Your task to perform on an android device: Go to Yahoo.com Image 0: 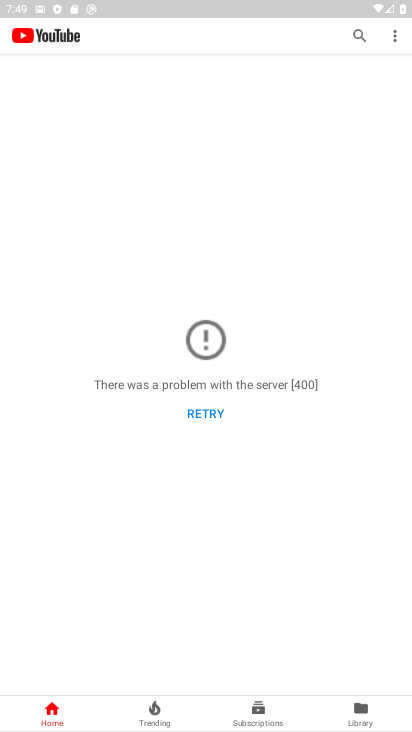
Step 0: drag from (271, 519) to (257, 477)
Your task to perform on an android device: Go to Yahoo.com Image 1: 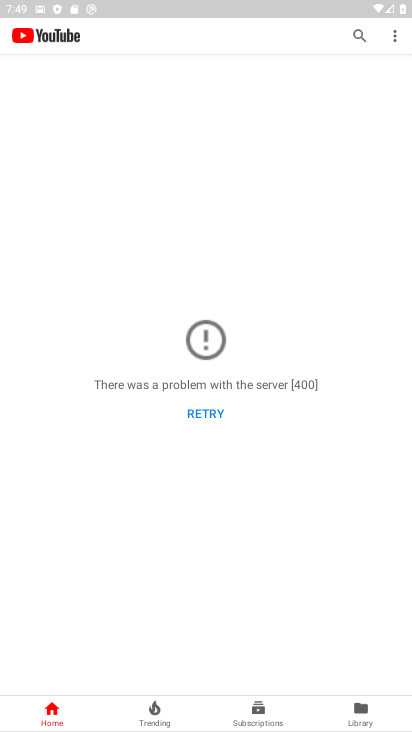
Step 1: press home button
Your task to perform on an android device: Go to Yahoo.com Image 2: 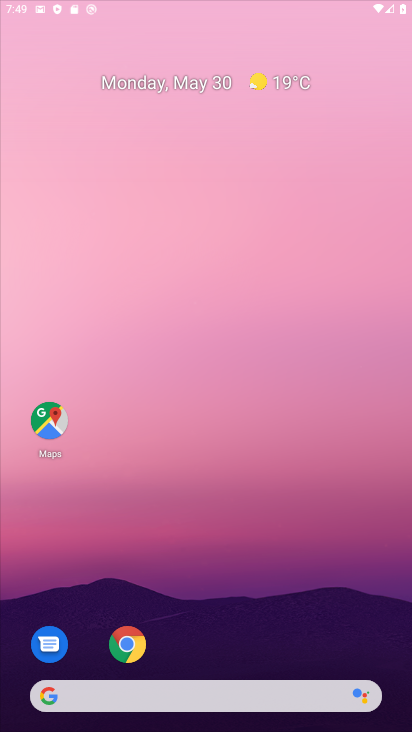
Step 2: drag from (157, 602) to (318, 2)
Your task to perform on an android device: Go to Yahoo.com Image 3: 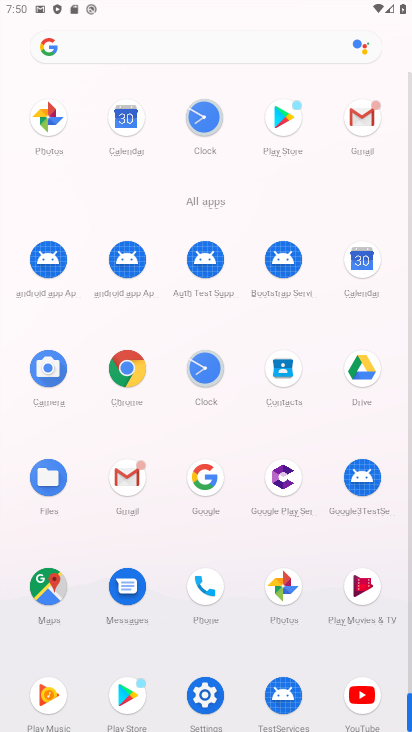
Step 3: click (145, 48)
Your task to perform on an android device: Go to Yahoo.com Image 4: 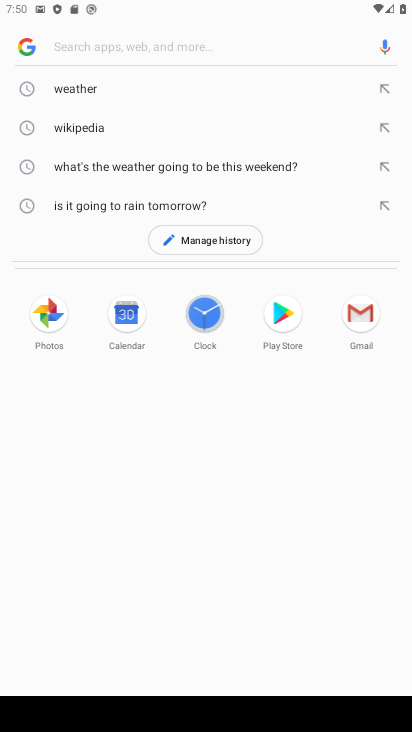
Step 4: type "Yahoo.com"
Your task to perform on an android device: Go to Yahoo.com Image 5: 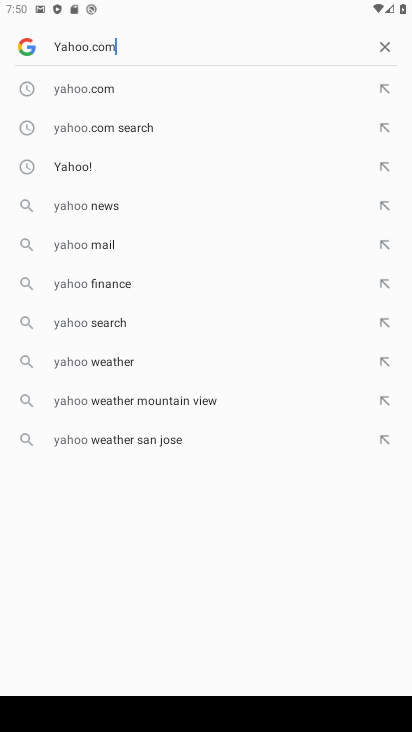
Step 5: type ""
Your task to perform on an android device: Go to Yahoo.com Image 6: 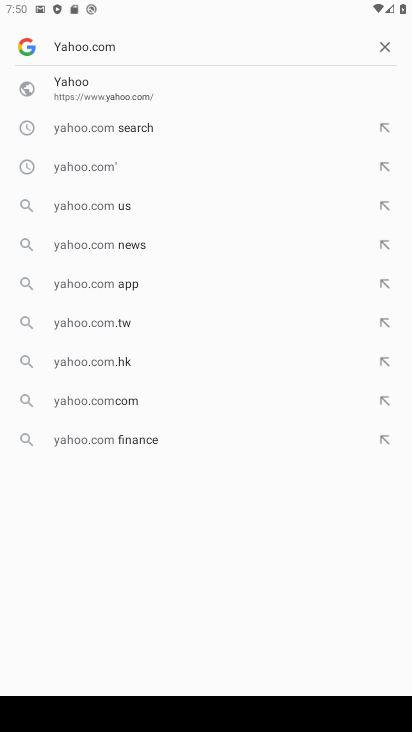
Step 6: click (86, 91)
Your task to perform on an android device: Go to Yahoo.com Image 7: 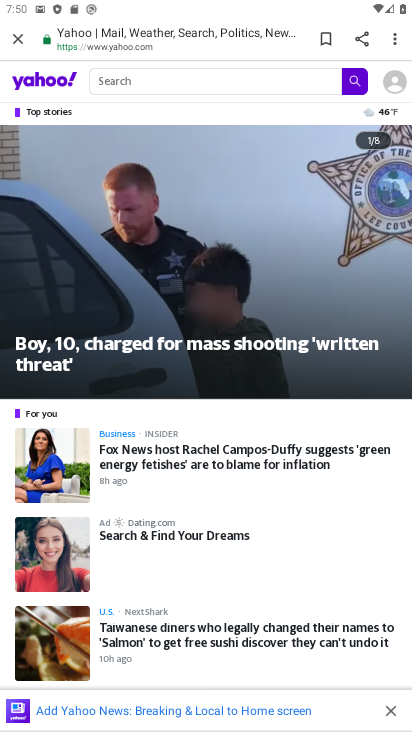
Step 7: task complete